Your task to perform on an android device: open a bookmark in the chrome app Image 0: 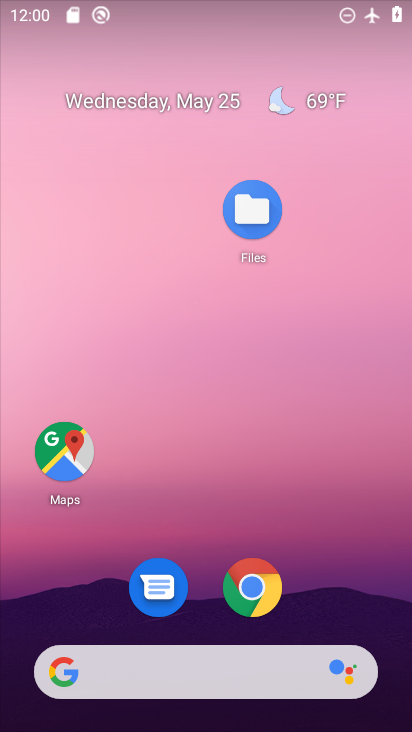
Step 0: click (255, 604)
Your task to perform on an android device: open a bookmark in the chrome app Image 1: 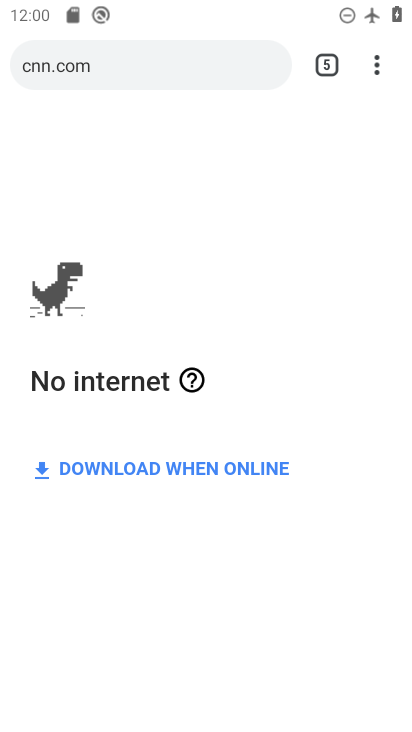
Step 1: click (376, 66)
Your task to perform on an android device: open a bookmark in the chrome app Image 2: 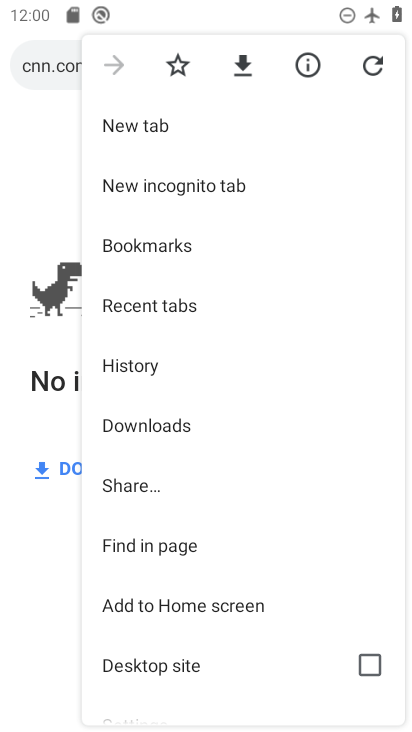
Step 2: click (164, 245)
Your task to perform on an android device: open a bookmark in the chrome app Image 3: 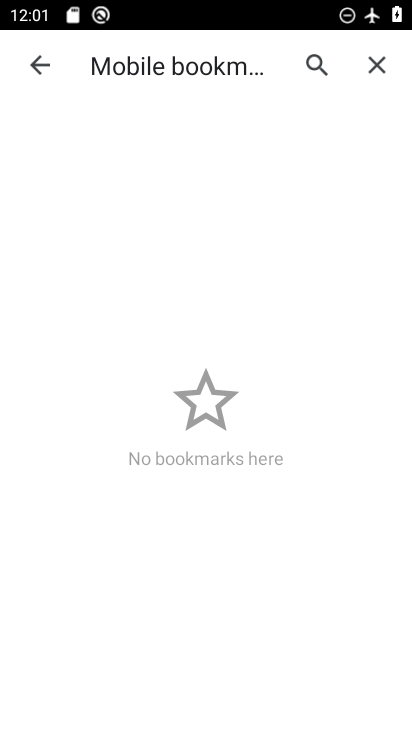
Step 3: task complete